Your task to perform on an android device: Search for a runner rug on Crate & Barrel. Image 0: 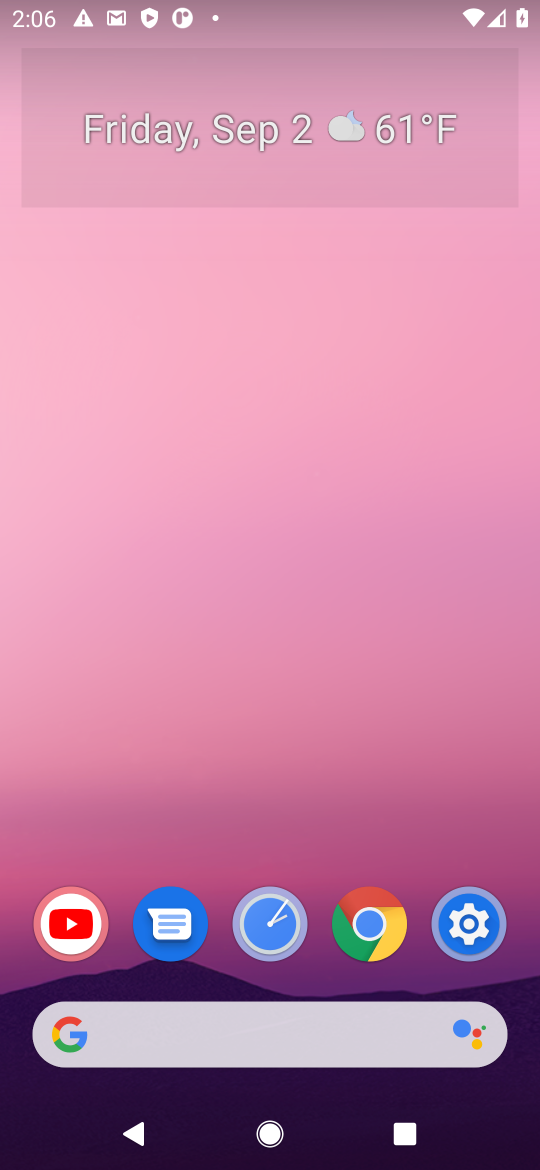
Step 0: press home button
Your task to perform on an android device: Search for a runner rug on Crate & Barrel. Image 1: 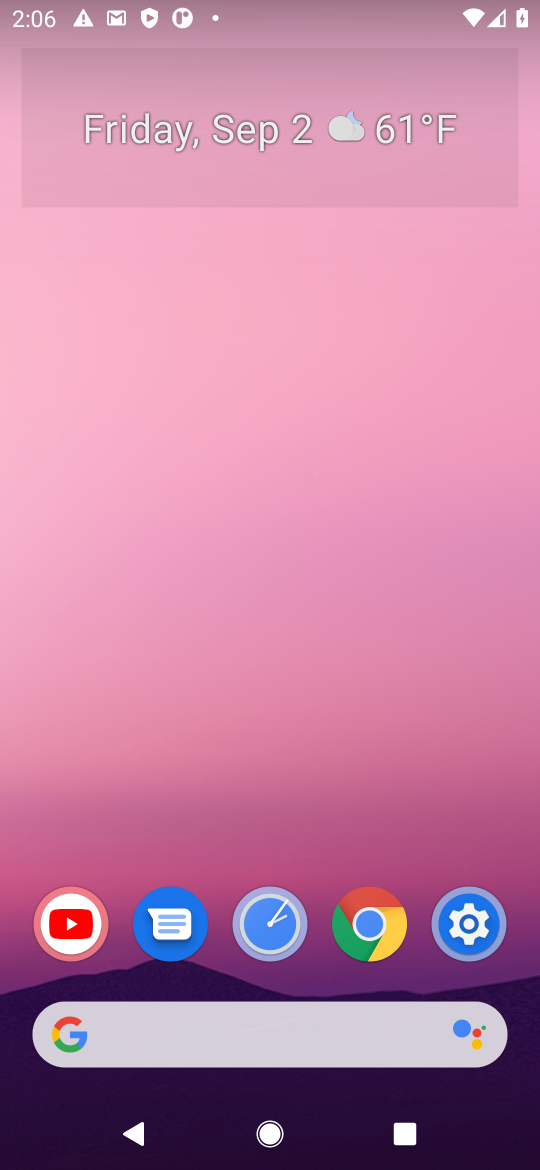
Step 1: click (390, 1031)
Your task to perform on an android device: Search for a runner rug on Crate & Barrel. Image 2: 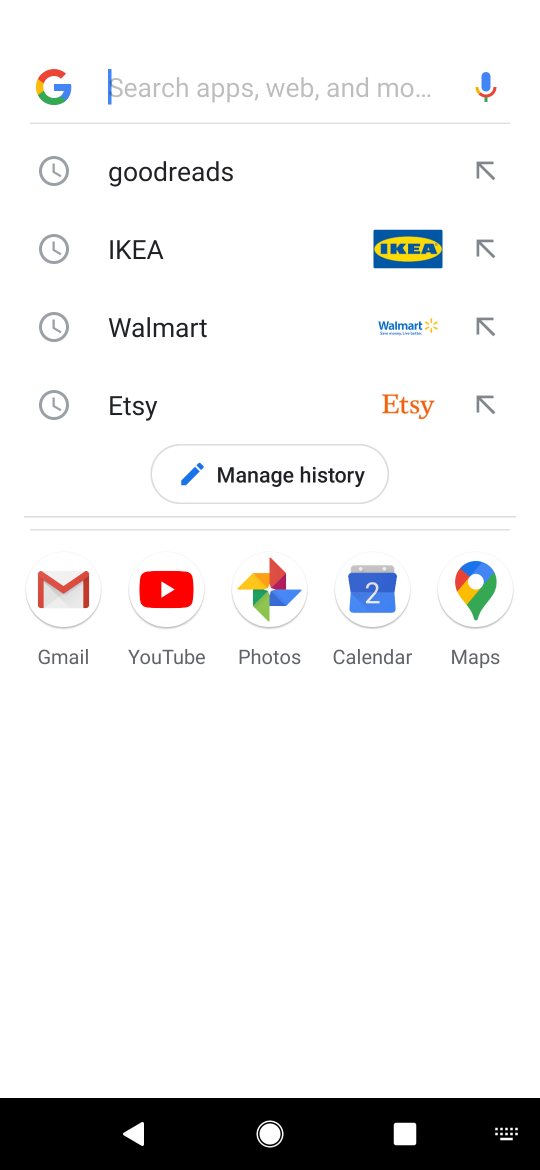
Step 2: press enter
Your task to perform on an android device: Search for a runner rug on Crate & Barrel. Image 3: 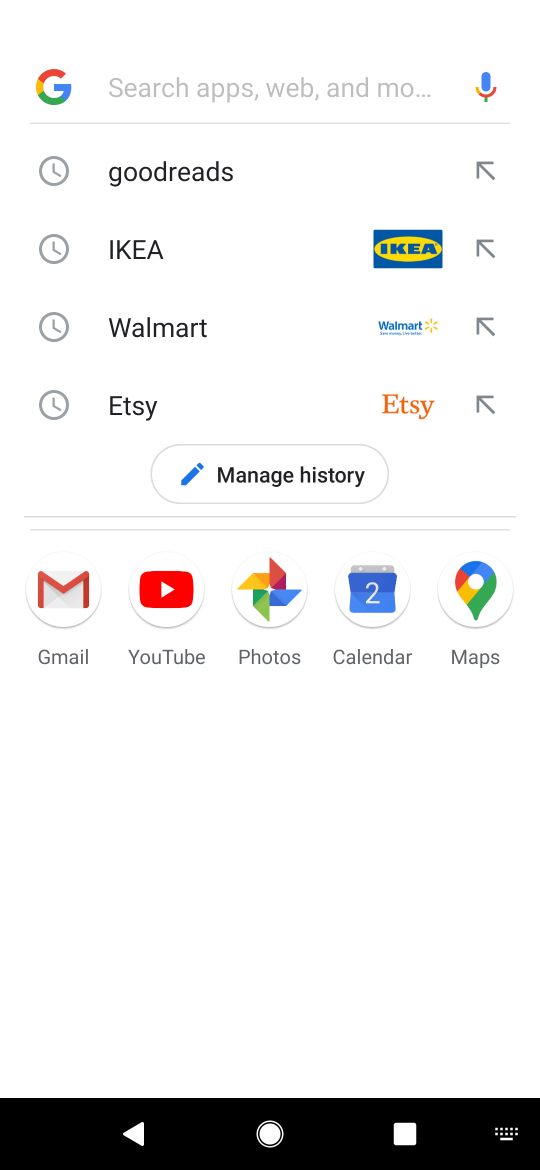
Step 3: type "crate barrel"
Your task to perform on an android device: Search for a runner rug on Crate & Barrel. Image 4: 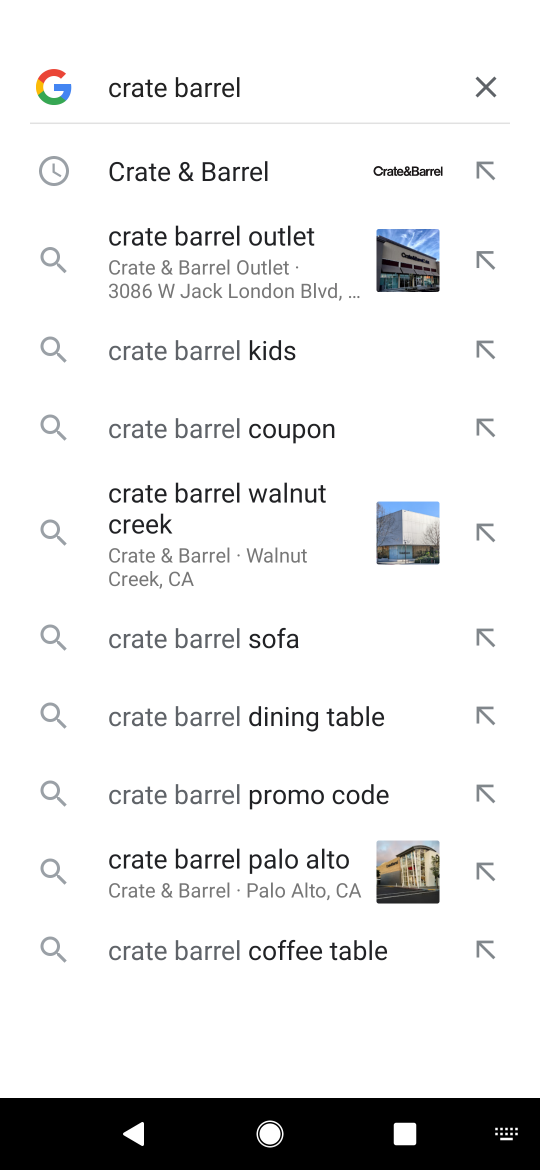
Step 4: click (247, 167)
Your task to perform on an android device: Search for a runner rug on Crate & Barrel. Image 5: 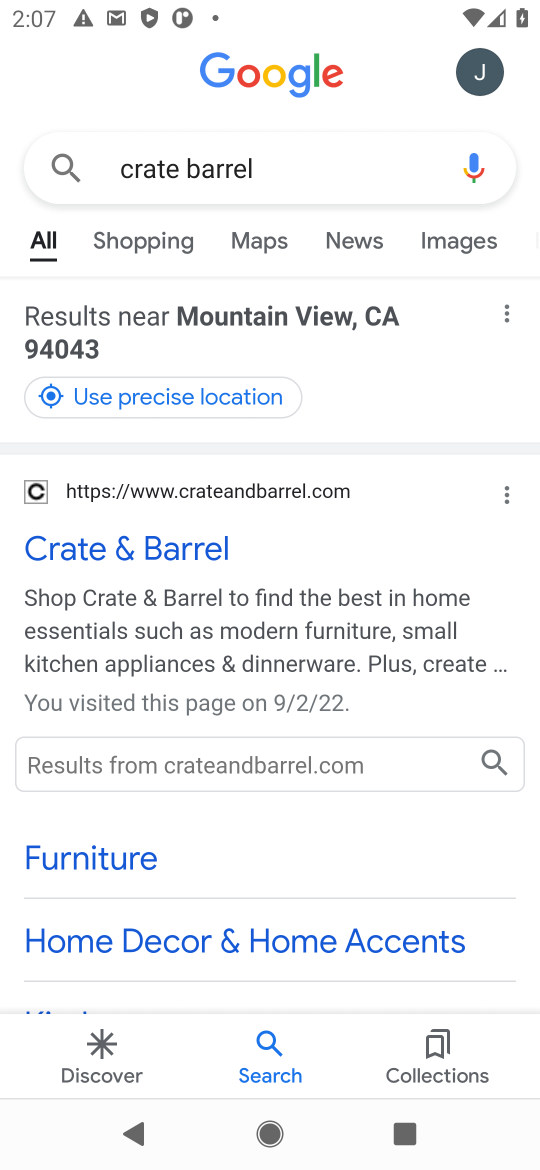
Step 5: click (164, 555)
Your task to perform on an android device: Search for a runner rug on Crate & Barrel. Image 6: 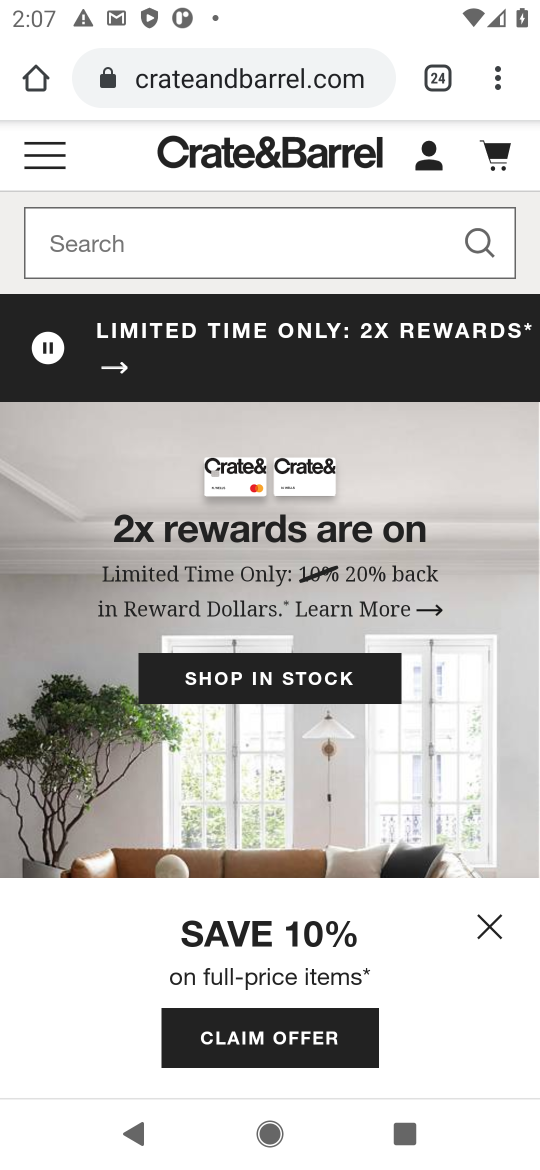
Step 6: click (261, 241)
Your task to perform on an android device: Search for a runner rug on Crate & Barrel. Image 7: 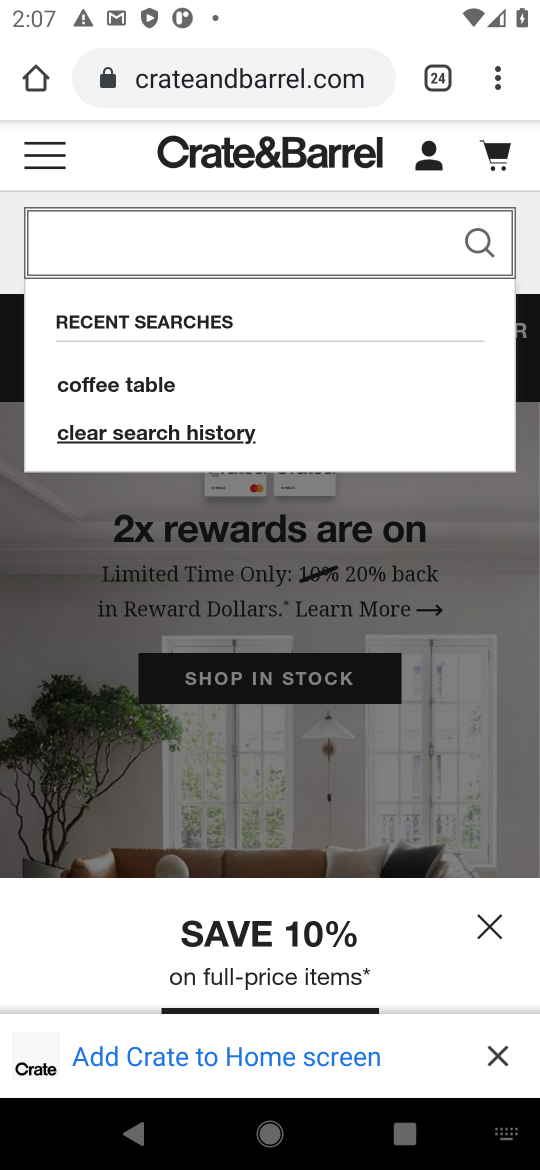
Step 7: type "runner rug"
Your task to perform on an android device: Search for a runner rug on Crate & Barrel. Image 8: 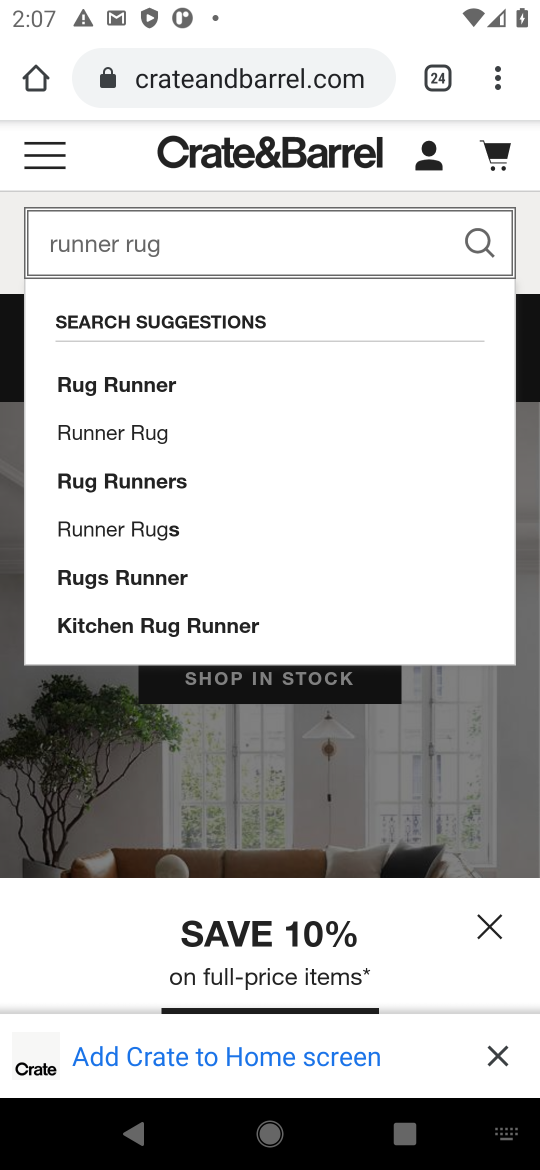
Step 8: click (137, 434)
Your task to perform on an android device: Search for a runner rug on Crate & Barrel. Image 9: 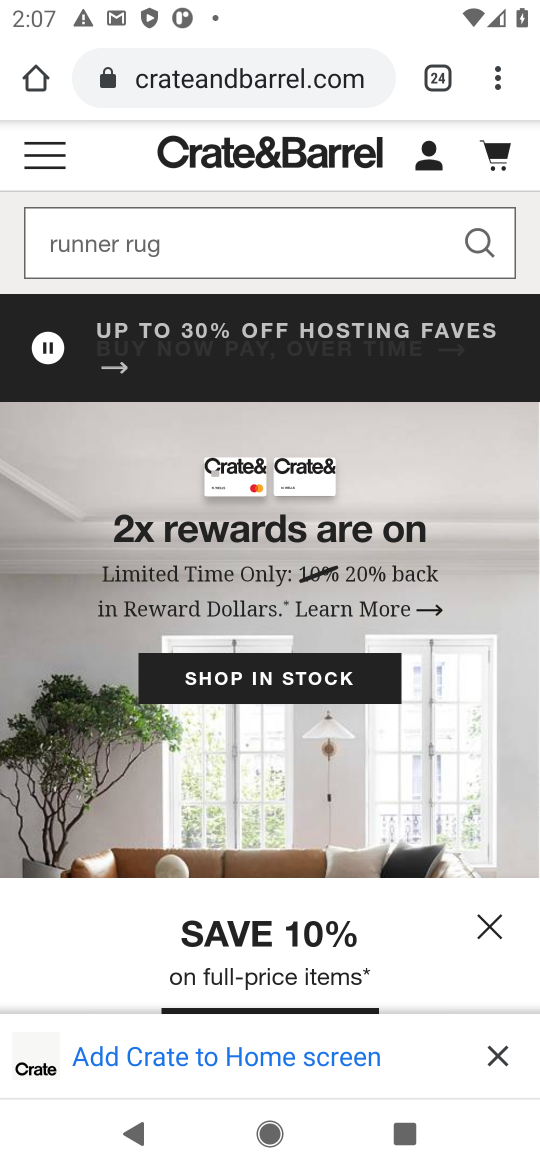
Step 9: click (475, 241)
Your task to perform on an android device: Search for a runner rug on Crate & Barrel. Image 10: 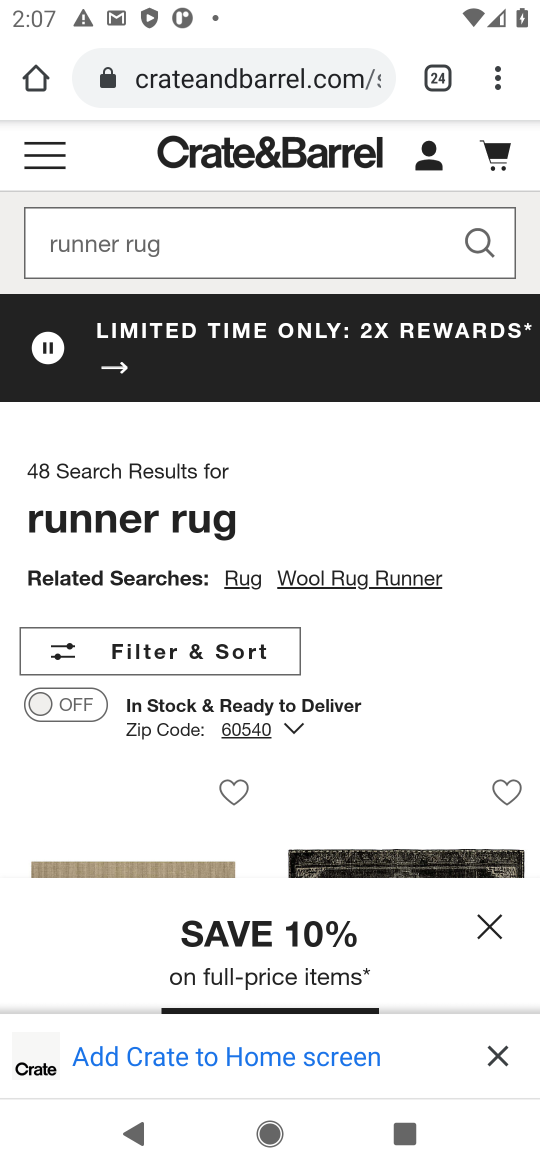
Step 10: click (474, 922)
Your task to perform on an android device: Search for a runner rug on Crate & Barrel. Image 11: 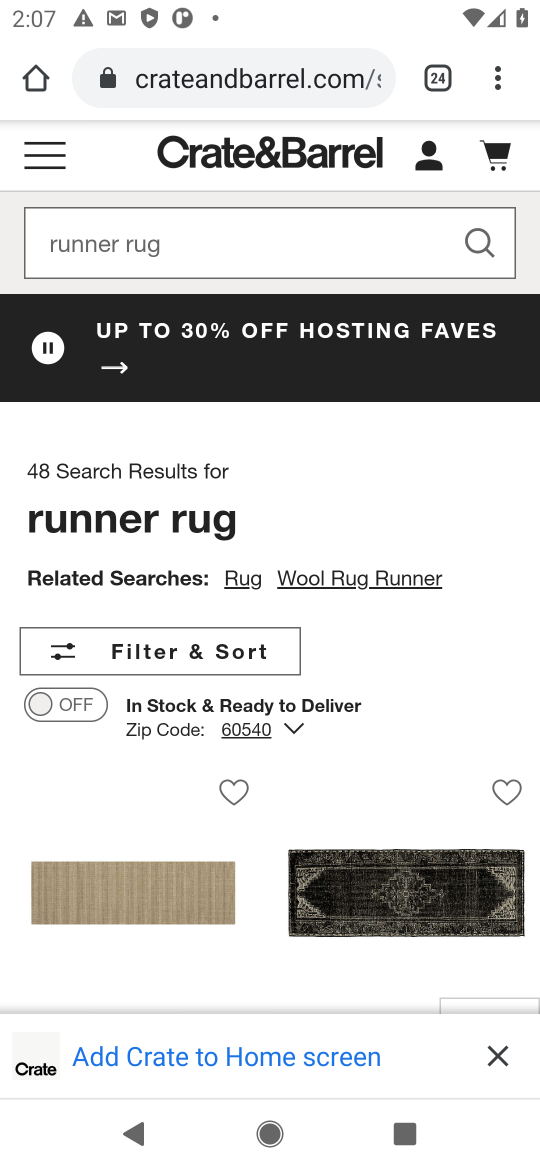
Step 11: click (497, 1050)
Your task to perform on an android device: Search for a runner rug on Crate & Barrel. Image 12: 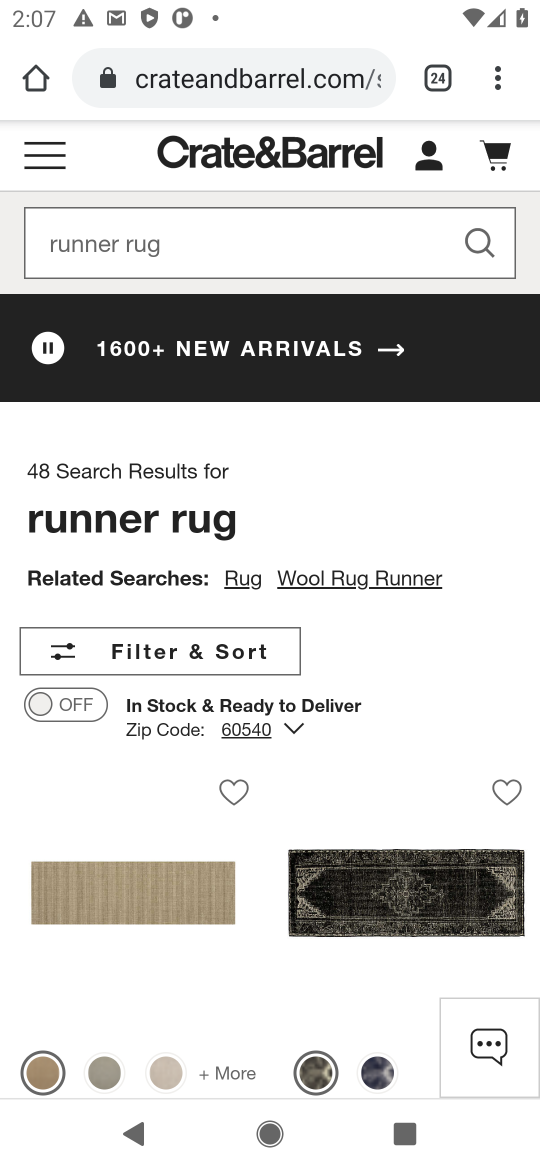
Step 12: task complete